Your task to perform on an android device: uninstall "Fetch Rewards" Image 0: 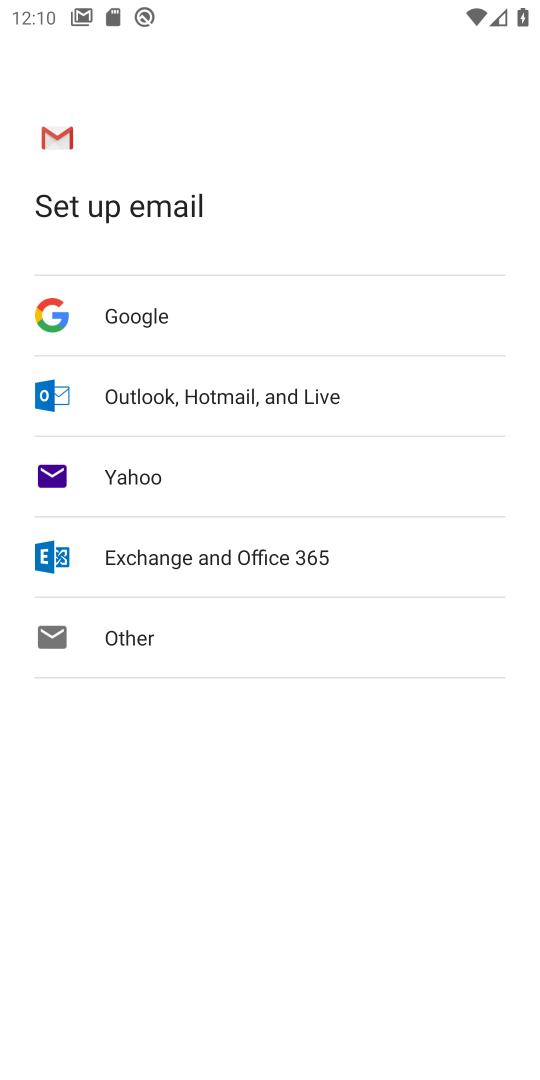
Step 0: press home button
Your task to perform on an android device: uninstall "Fetch Rewards" Image 1: 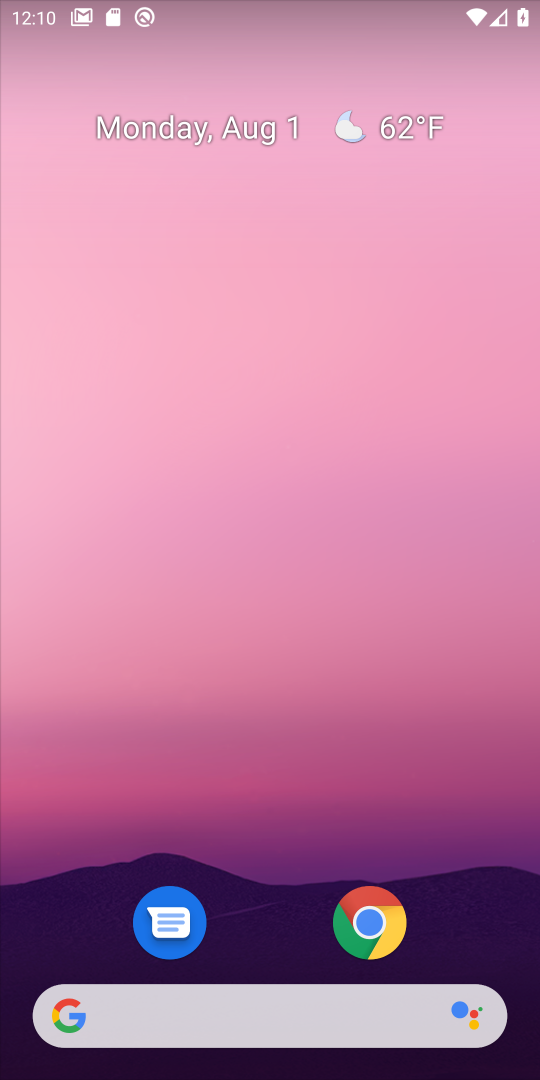
Step 1: drag from (243, 891) to (246, 271)
Your task to perform on an android device: uninstall "Fetch Rewards" Image 2: 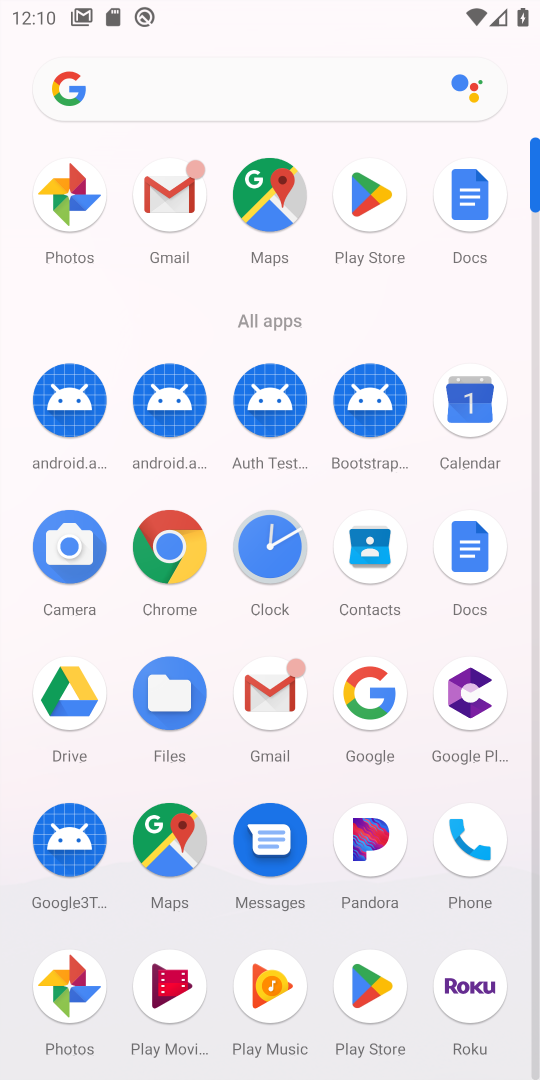
Step 2: click (337, 207)
Your task to perform on an android device: uninstall "Fetch Rewards" Image 3: 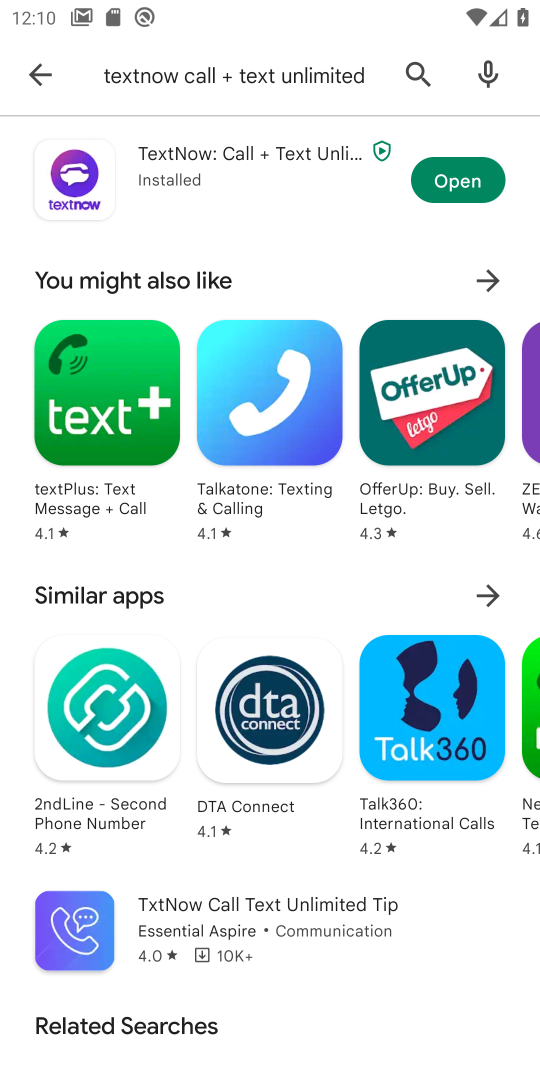
Step 3: click (415, 68)
Your task to perform on an android device: uninstall "Fetch Rewards" Image 4: 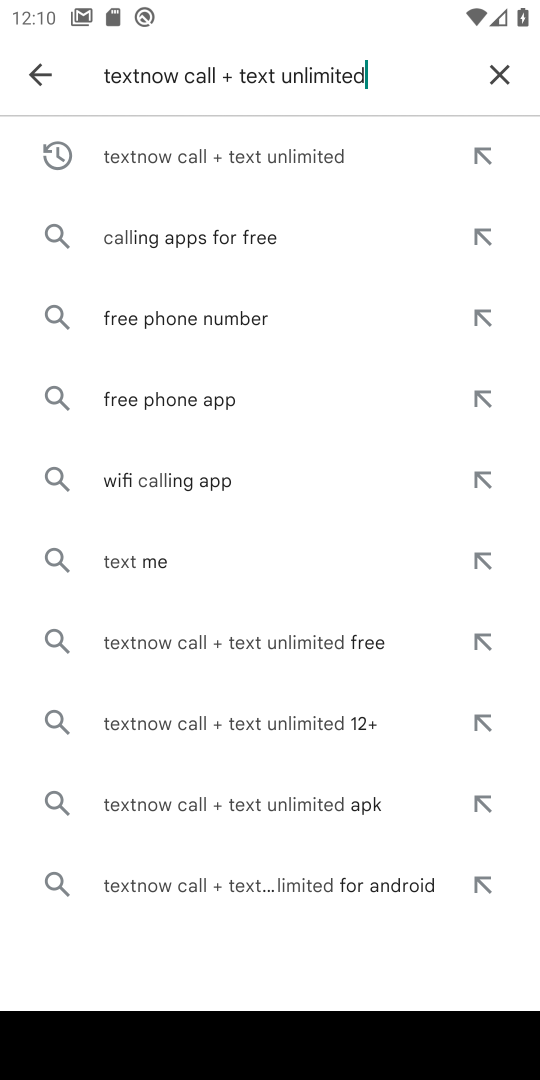
Step 4: click (487, 74)
Your task to perform on an android device: uninstall "Fetch Rewards" Image 5: 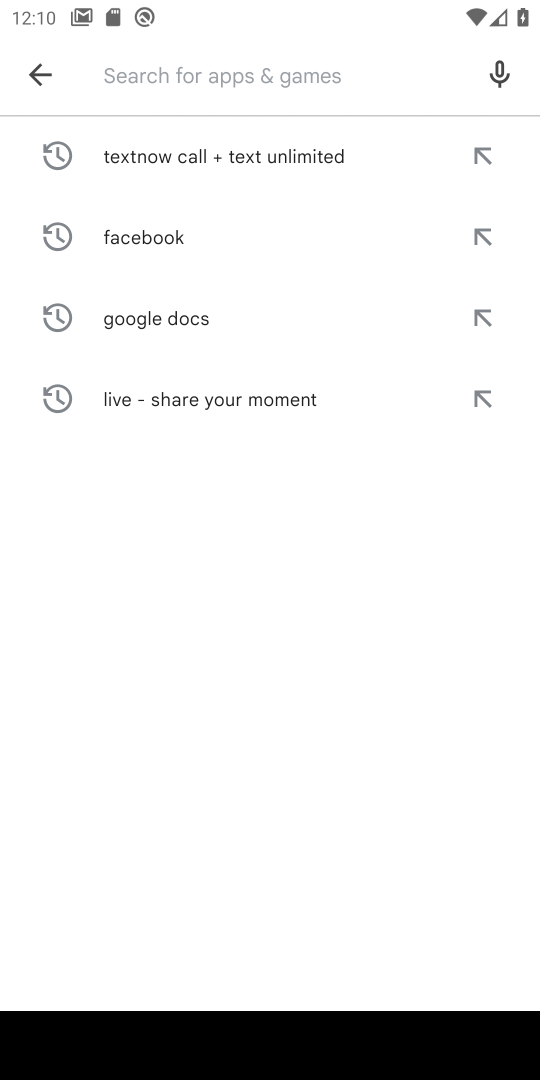
Step 5: type "Fetch Rewards"
Your task to perform on an android device: uninstall "Fetch Rewards" Image 6: 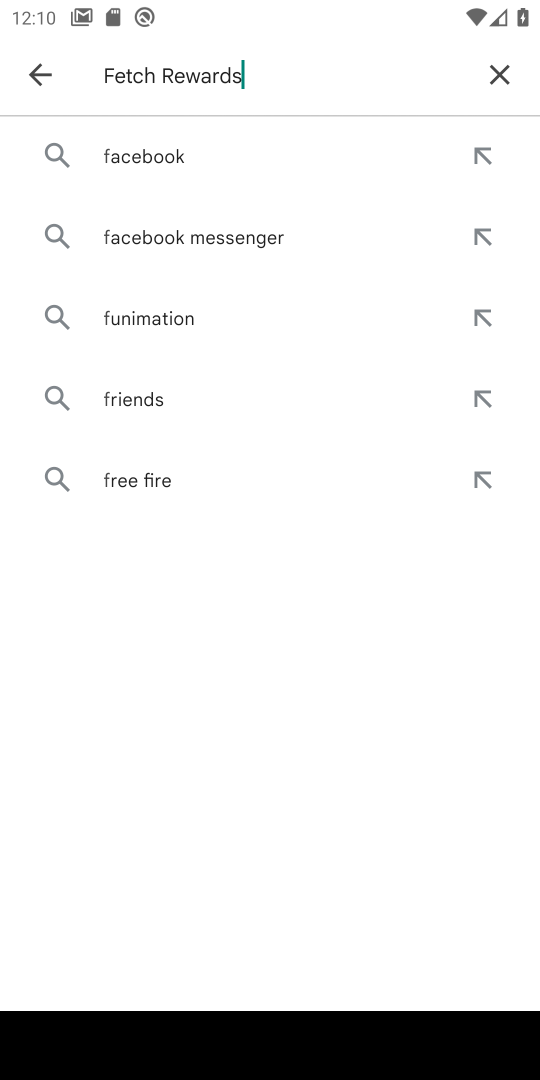
Step 6: type ""
Your task to perform on an android device: uninstall "Fetch Rewards" Image 7: 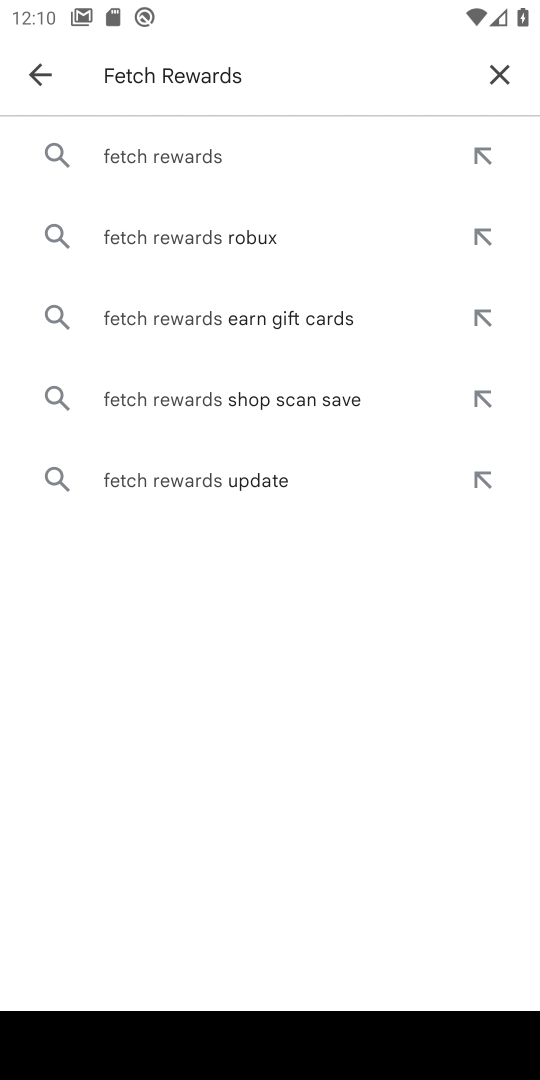
Step 7: click (188, 157)
Your task to perform on an android device: uninstall "Fetch Rewards" Image 8: 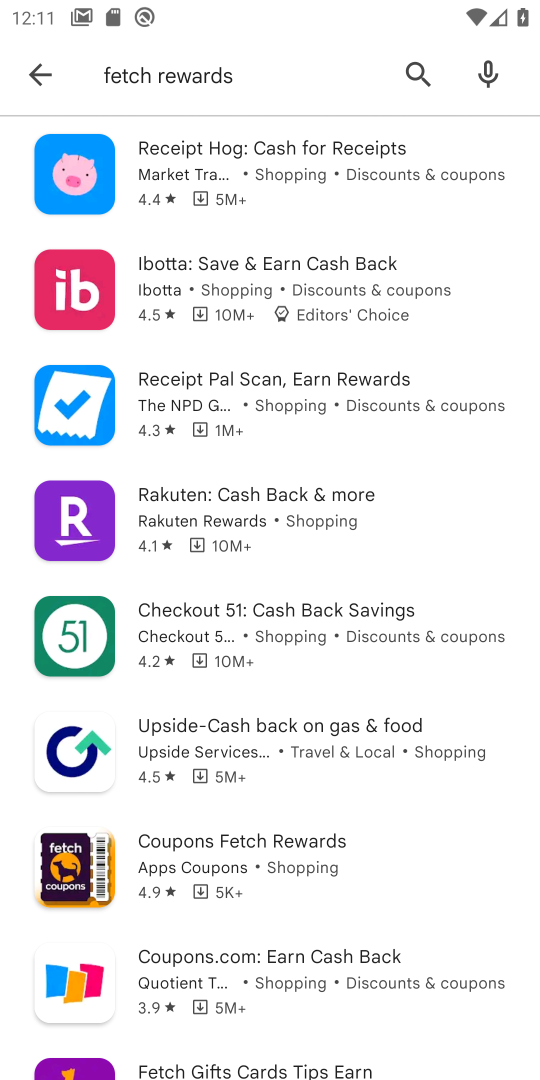
Step 8: task complete